Your task to perform on an android device: turn notification dots off Image 0: 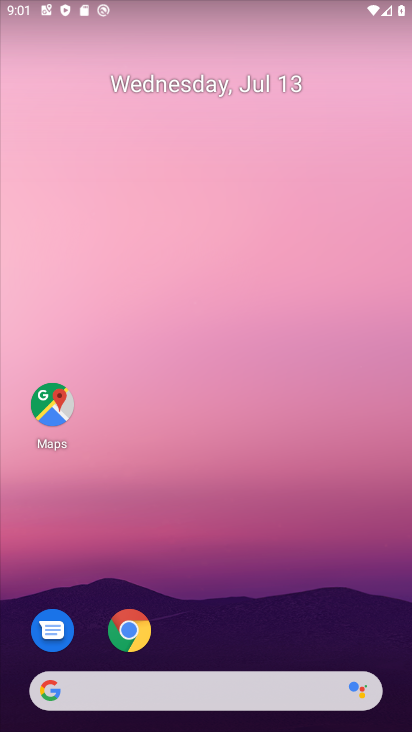
Step 0: drag from (236, 627) to (291, 124)
Your task to perform on an android device: turn notification dots off Image 1: 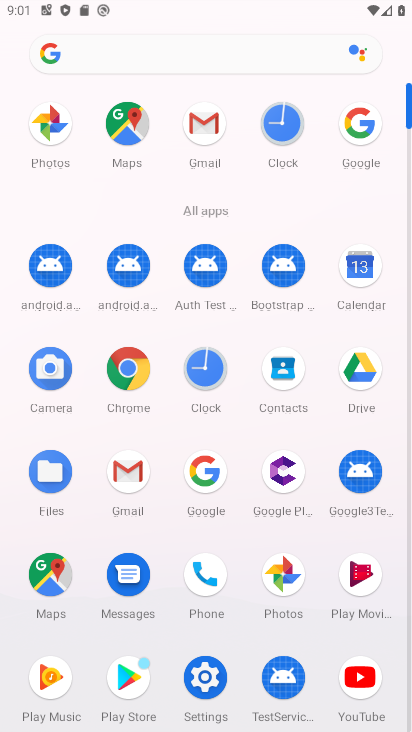
Step 1: click (201, 671)
Your task to perform on an android device: turn notification dots off Image 2: 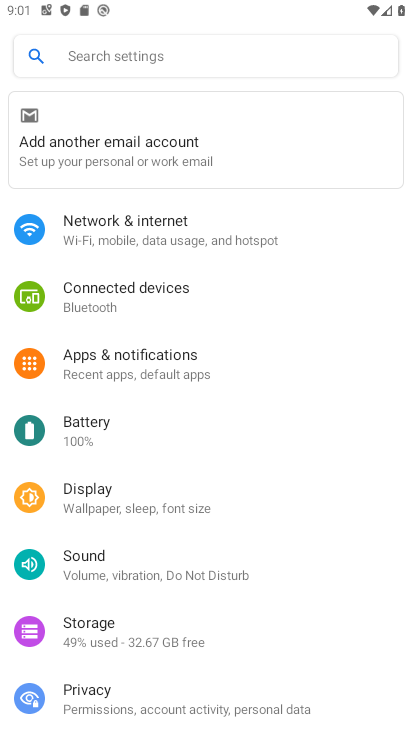
Step 2: click (248, 345)
Your task to perform on an android device: turn notification dots off Image 3: 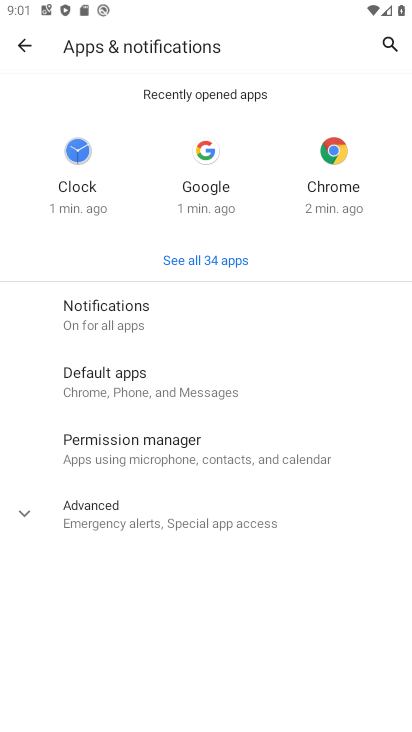
Step 3: click (185, 325)
Your task to perform on an android device: turn notification dots off Image 4: 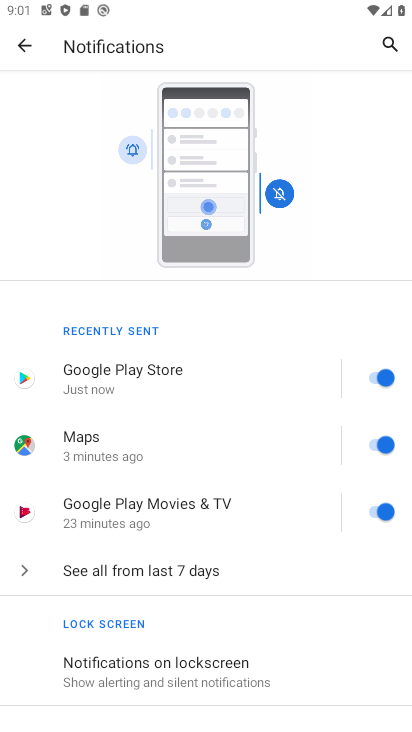
Step 4: drag from (192, 702) to (227, 296)
Your task to perform on an android device: turn notification dots off Image 5: 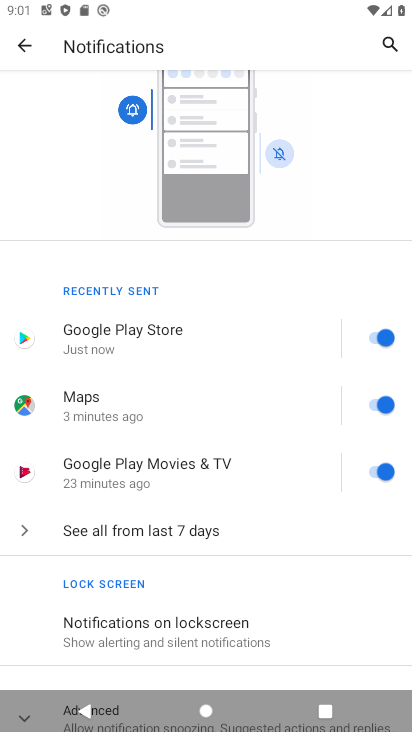
Step 5: drag from (223, 653) to (228, 284)
Your task to perform on an android device: turn notification dots off Image 6: 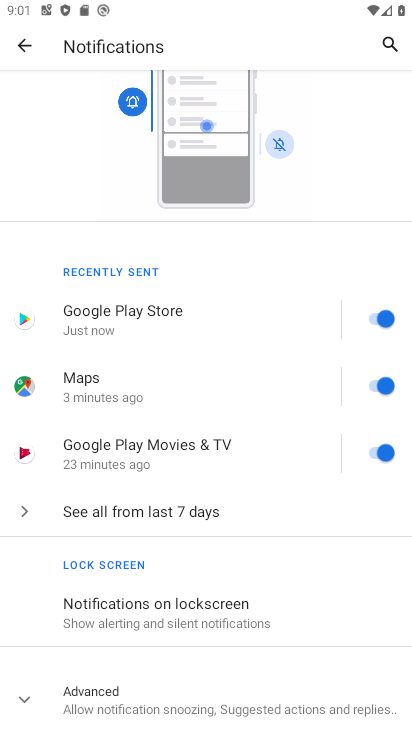
Step 6: drag from (231, 449) to (244, 375)
Your task to perform on an android device: turn notification dots off Image 7: 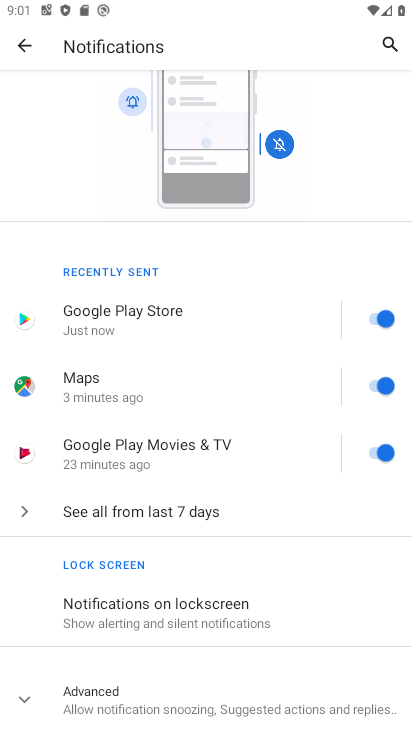
Step 7: drag from (228, 601) to (262, 294)
Your task to perform on an android device: turn notification dots off Image 8: 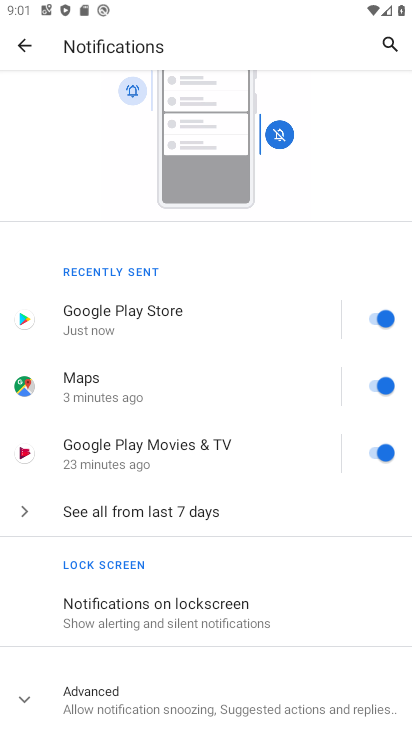
Step 8: click (314, 716)
Your task to perform on an android device: turn notification dots off Image 9: 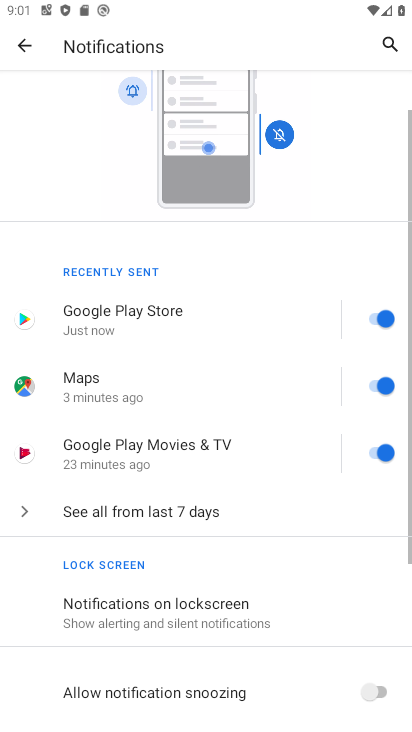
Step 9: drag from (314, 716) to (316, 441)
Your task to perform on an android device: turn notification dots off Image 10: 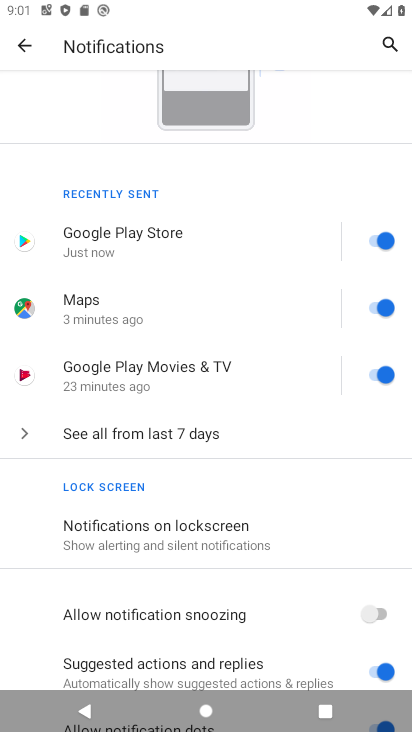
Step 10: drag from (329, 383) to (329, 187)
Your task to perform on an android device: turn notification dots off Image 11: 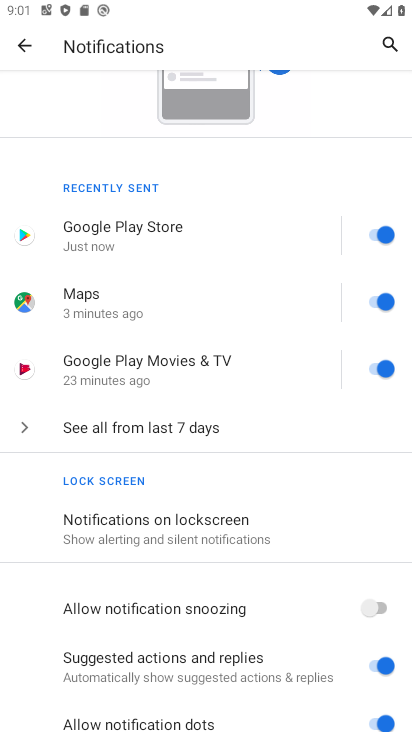
Step 11: click (379, 718)
Your task to perform on an android device: turn notification dots off Image 12: 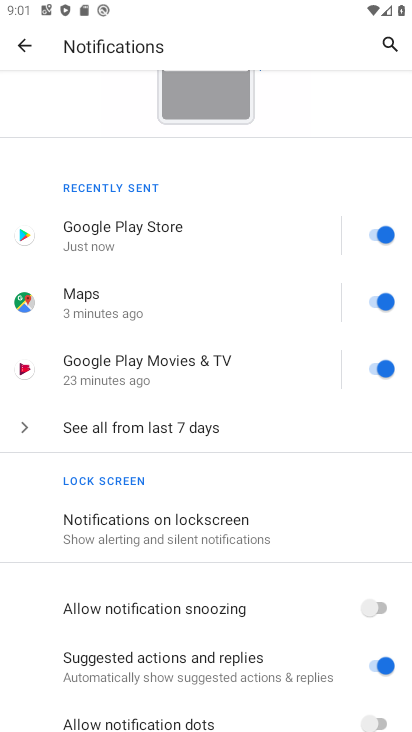
Step 12: task complete